Your task to perform on an android device: all mails in gmail Image 0: 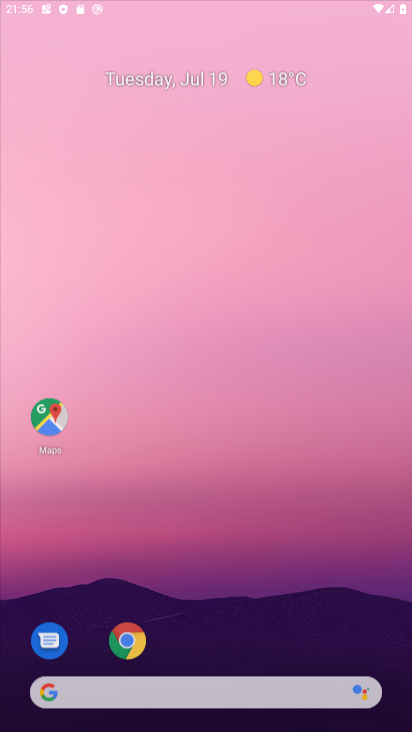
Step 0: drag from (217, 727) to (179, 192)
Your task to perform on an android device: all mails in gmail Image 1: 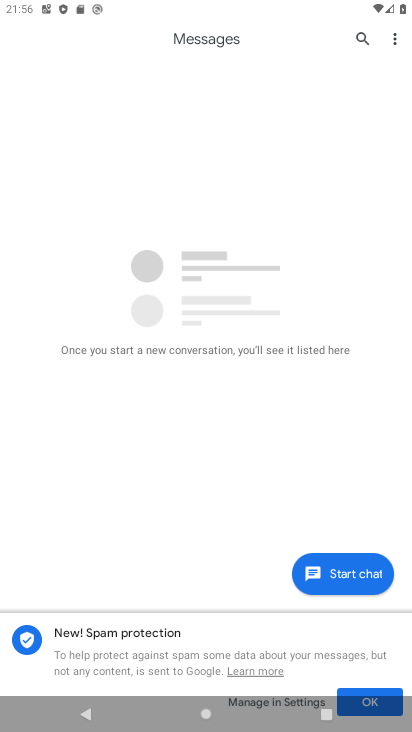
Step 1: press home button
Your task to perform on an android device: all mails in gmail Image 2: 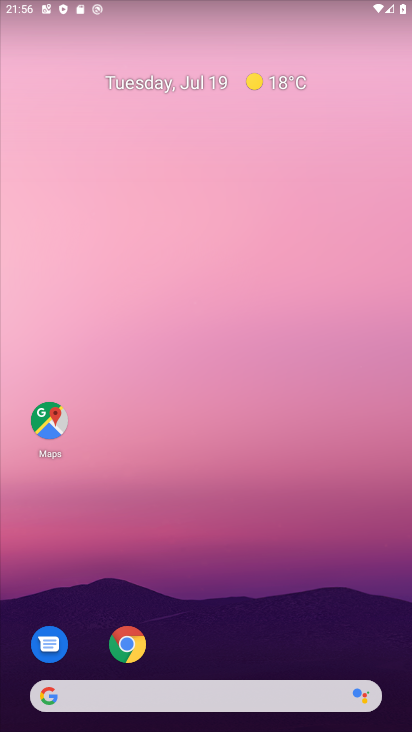
Step 2: drag from (221, 726) to (202, 362)
Your task to perform on an android device: all mails in gmail Image 3: 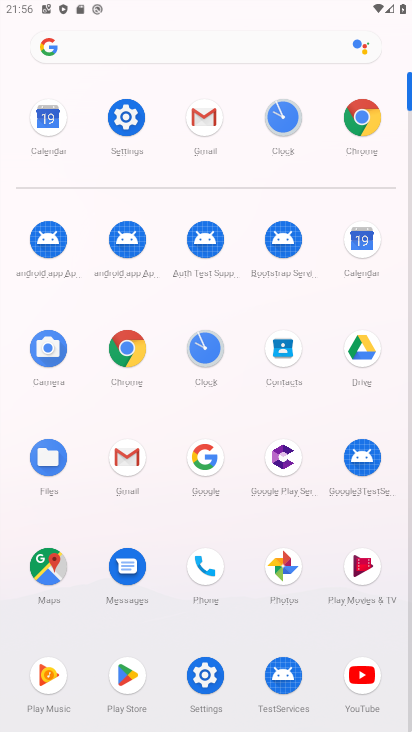
Step 3: click (128, 457)
Your task to perform on an android device: all mails in gmail Image 4: 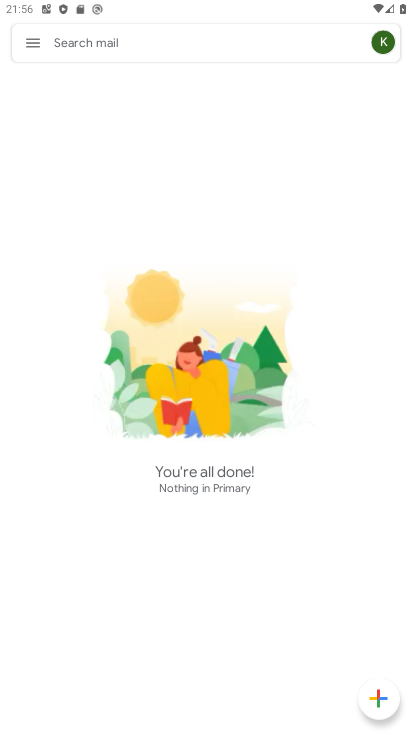
Step 4: click (28, 47)
Your task to perform on an android device: all mails in gmail Image 5: 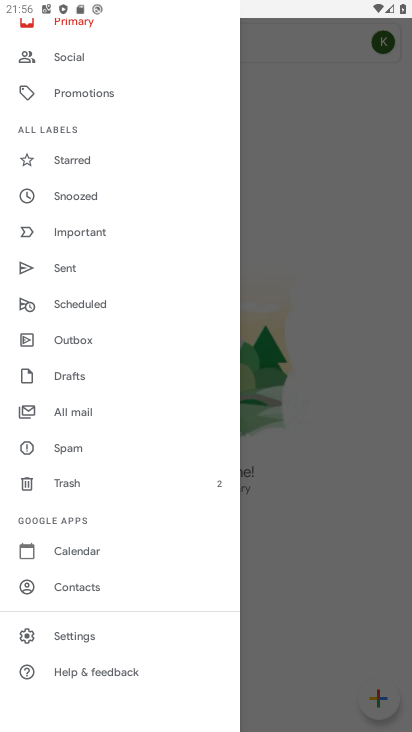
Step 5: click (65, 413)
Your task to perform on an android device: all mails in gmail Image 6: 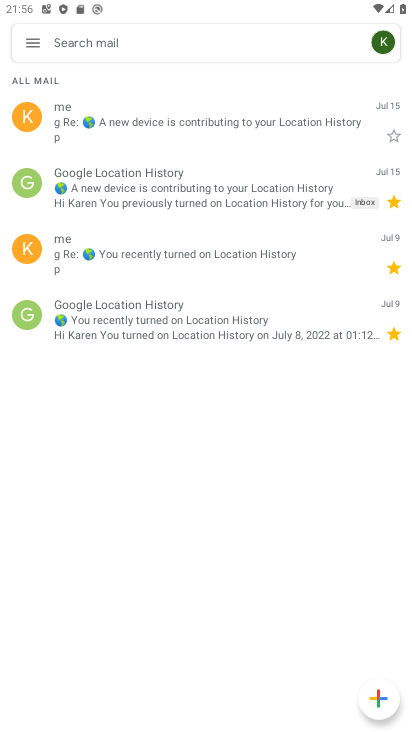
Step 6: task complete